Your task to perform on an android device: Open Google Chrome and open the bookmarks view Image 0: 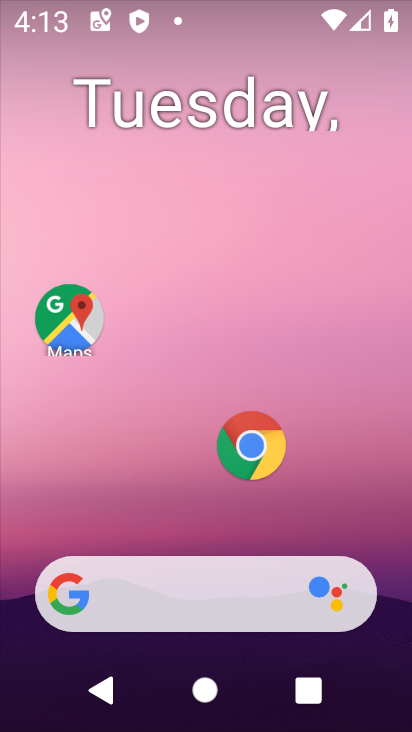
Step 0: click (251, 446)
Your task to perform on an android device: Open Google Chrome and open the bookmarks view Image 1: 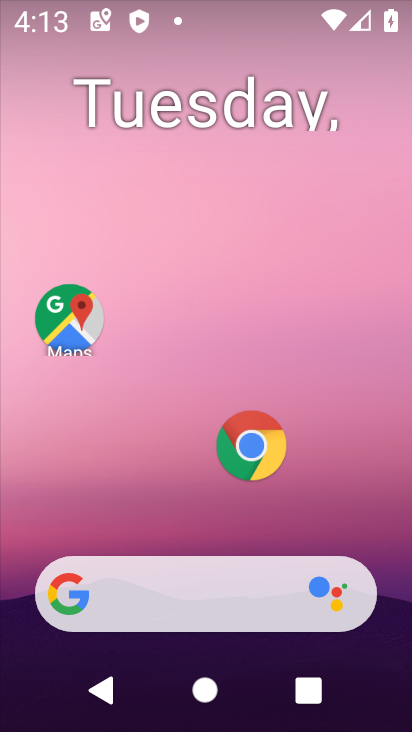
Step 1: click (251, 446)
Your task to perform on an android device: Open Google Chrome and open the bookmarks view Image 2: 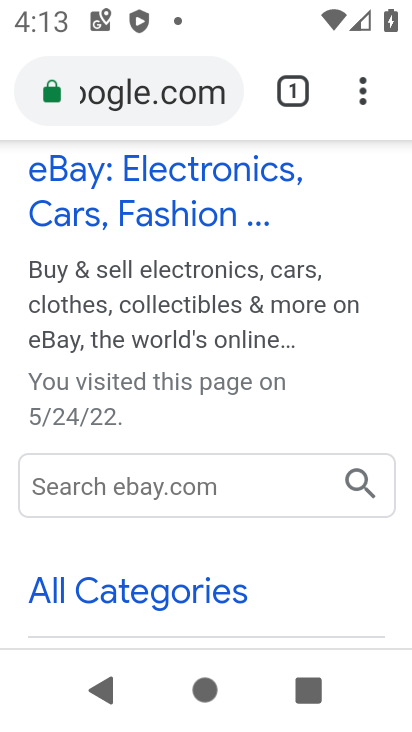
Step 2: click (266, 423)
Your task to perform on an android device: Open Google Chrome and open the bookmarks view Image 3: 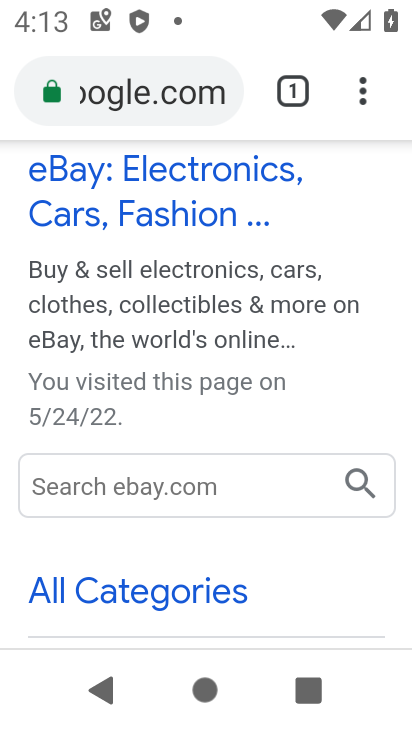
Step 3: click (369, 89)
Your task to perform on an android device: Open Google Chrome and open the bookmarks view Image 4: 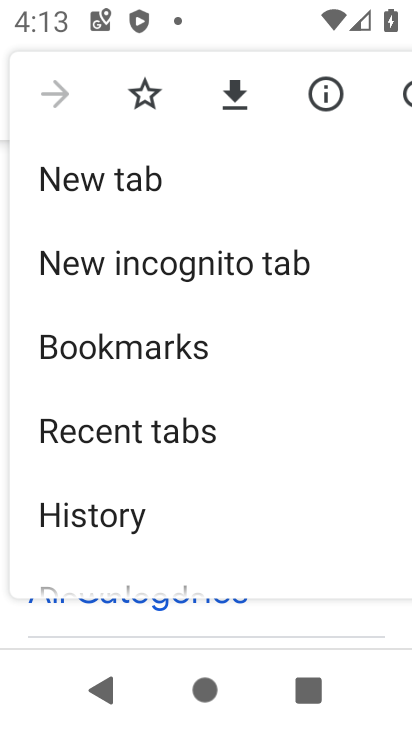
Step 4: click (131, 353)
Your task to perform on an android device: Open Google Chrome and open the bookmarks view Image 5: 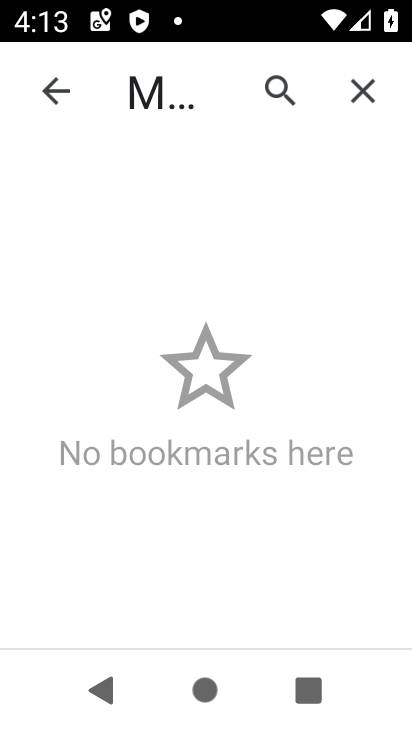
Step 5: task complete